Your task to perform on an android device: empty trash in google photos Image 0: 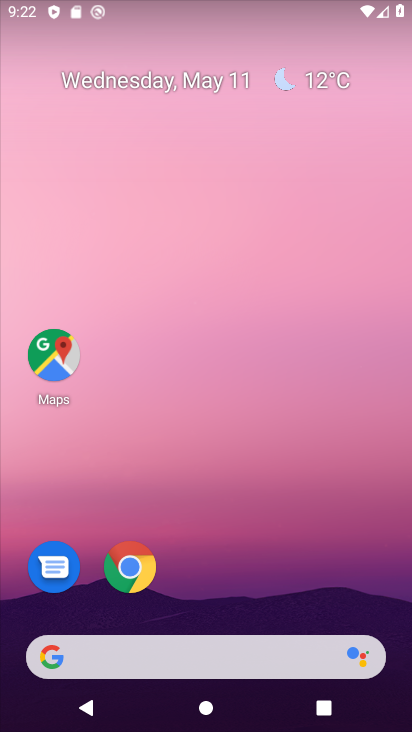
Step 0: drag from (179, 625) to (319, 90)
Your task to perform on an android device: empty trash in google photos Image 1: 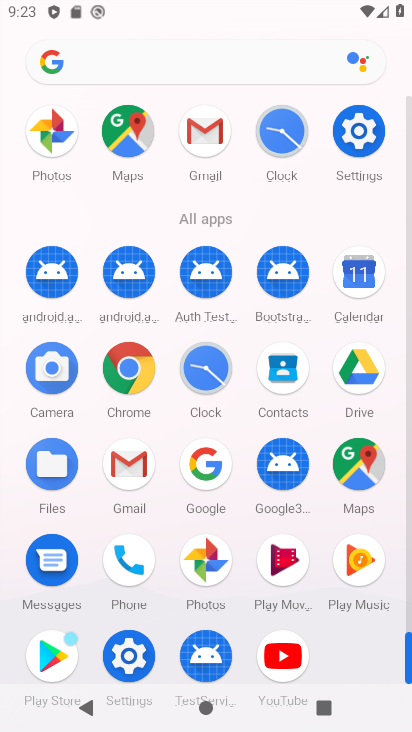
Step 1: click (206, 572)
Your task to perform on an android device: empty trash in google photos Image 2: 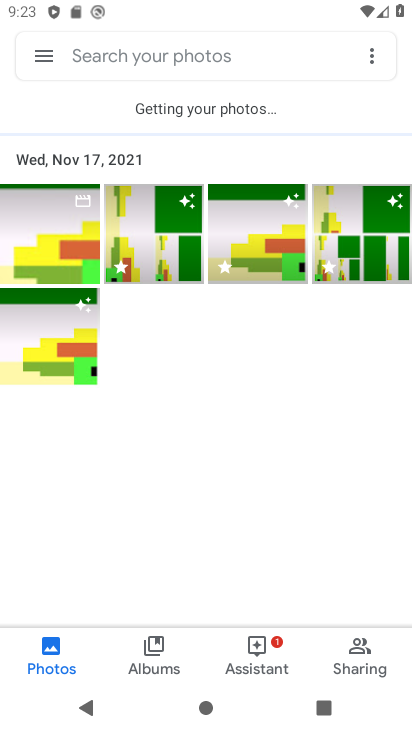
Step 2: click (49, 49)
Your task to perform on an android device: empty trash in google photos Image 3: 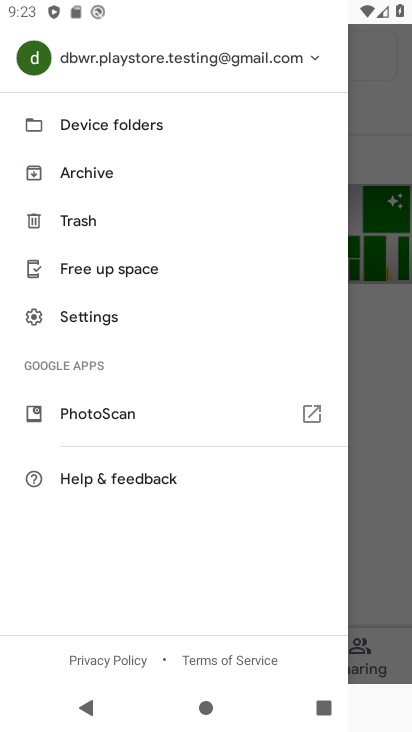
Step 3: click (112, 231)
Your task to perform on an android device: empty trash in google photos Image 4: 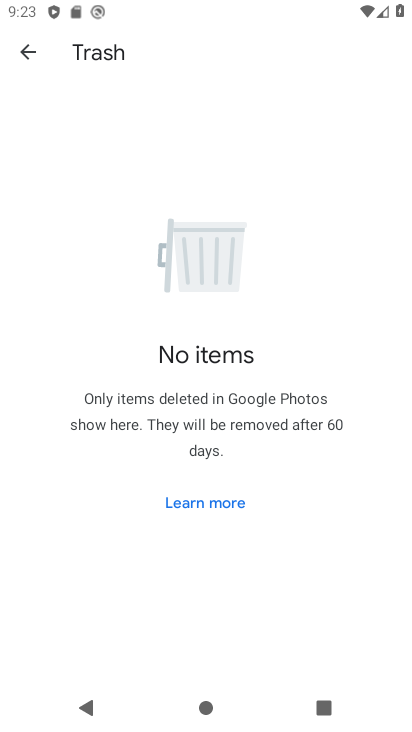
Step 4: task complete